Your task to perform on an android device: turn off sleep mode Image 0: 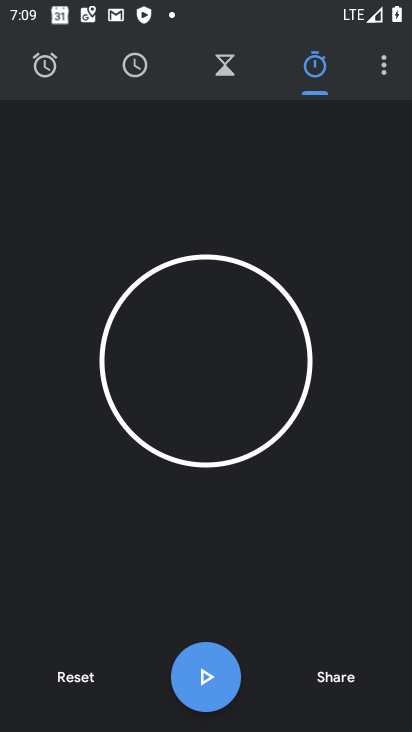
Step 0: press home button
Your task to perform on an android device: turn off sleep mode Image 1: 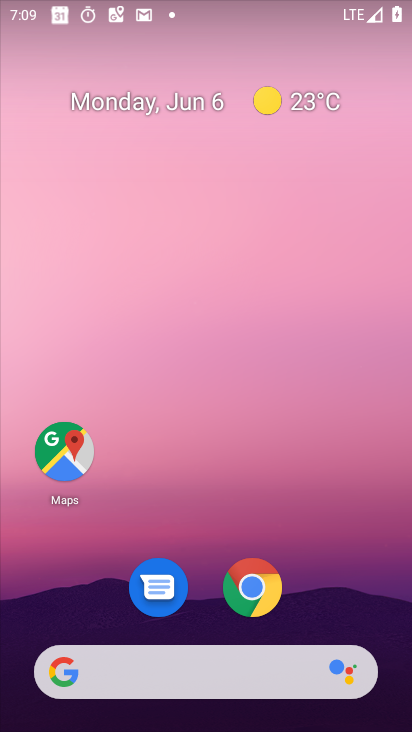
Step 1: drag from (375, 616) to (333, 51)
Your task to perform on an android device: turn off sleep mode Image 2: 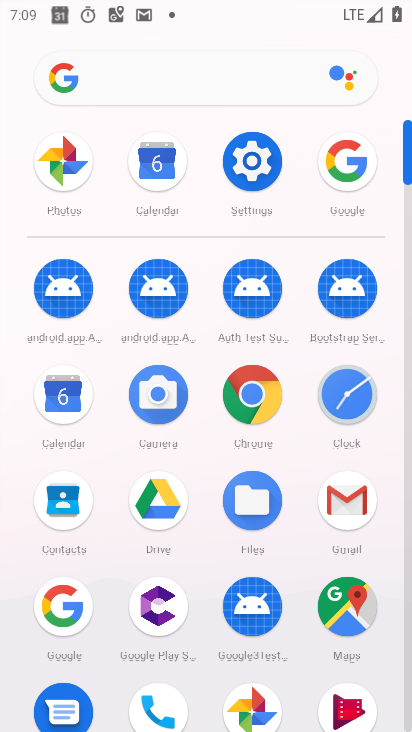
Step 2: click (249, 160)
Your task to perform on an android device: turn off sleep mode Image 3: 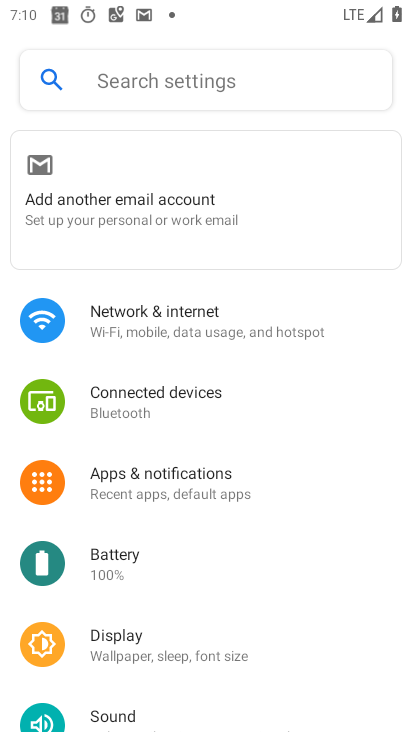
Step 3: task complete